Your task to perform on an android device: Open calendar and show me the fourth week of next month Image 0: 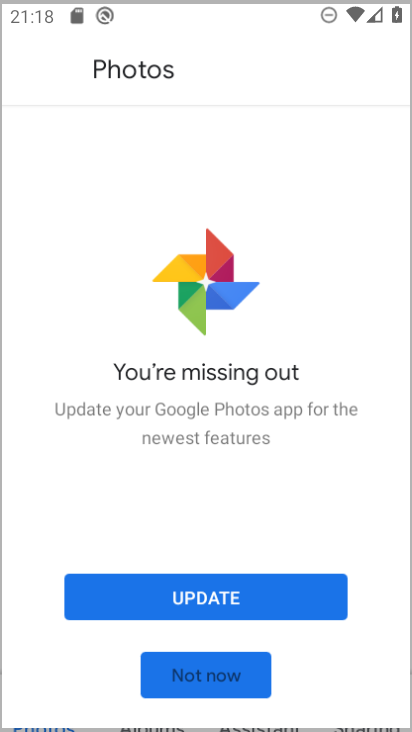
Step 0: press home button
Your task to perform on an android device: Open calendar and show me the fourth week of next month Image 1: 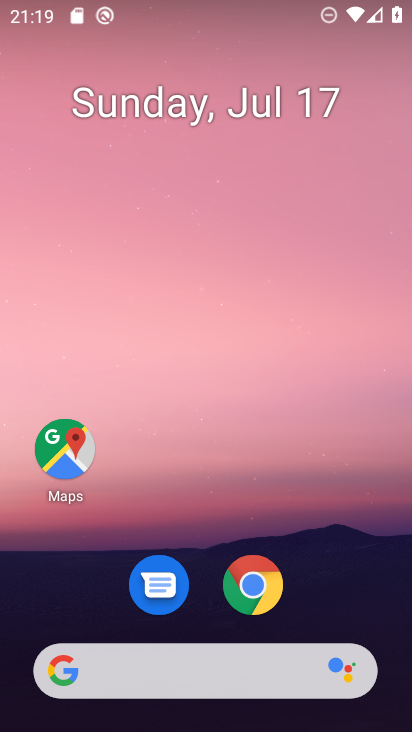
Step 1: drag from (206, 650) to (344, 131)
Your task to perform on an android device: Open calendar and show me the fourth week of next month Image 2: 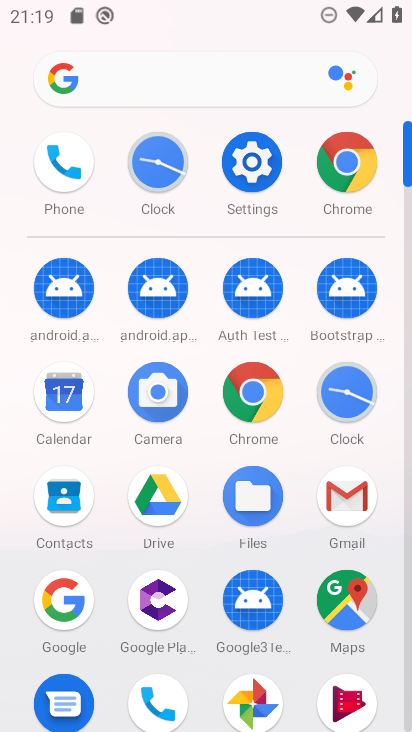
Step 2: click (71, 402)
Your task to perform on an android device: Open calendar and show me the fourth week of next month Image 3: 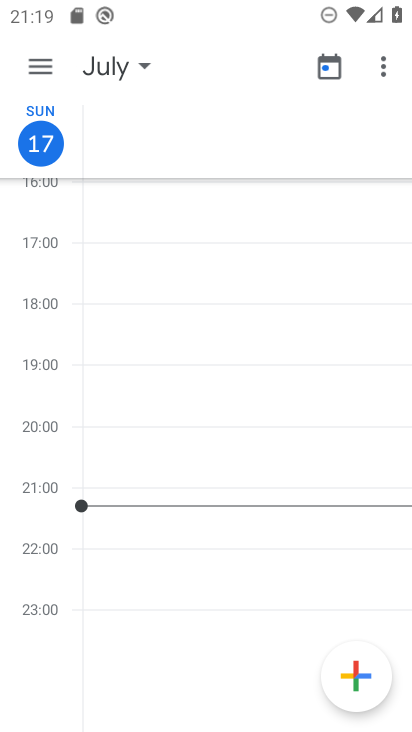
Step 3: click (98, 67)
Your task to perform on an android device: Open calendar and show me the fourth week of next month Image 4: 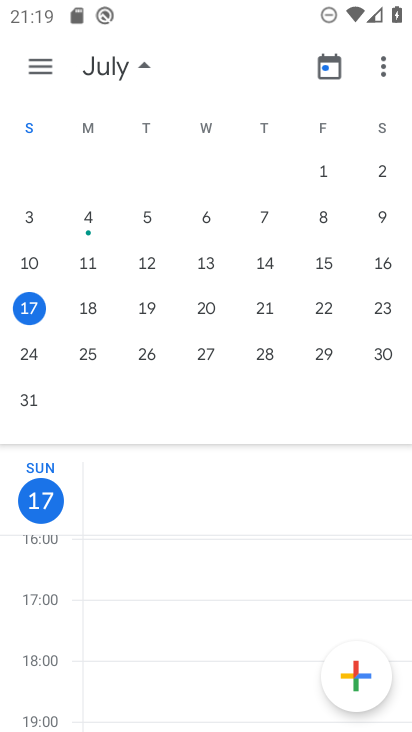
Step 4: drag from (381, 306) to (20, 280)
Your task to perform on an android device: Open calendar and show me the fourth week of next month Image 5: 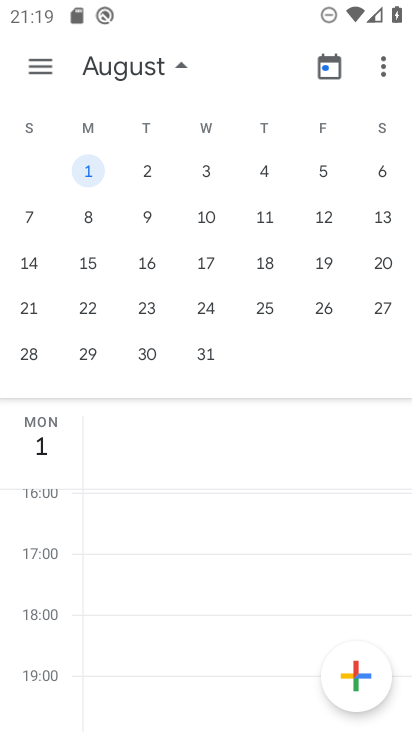
Step 5: click (26, 314)
Your task to perform on an android device: Open calendar and show me the fourth week of next month Image 6: 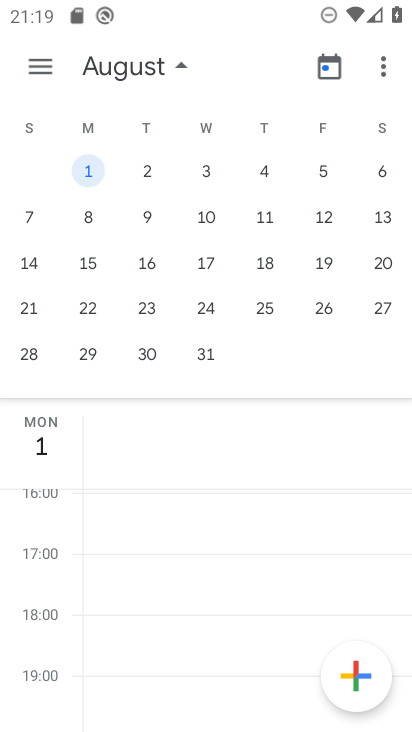
Step 6: click (31, 308)
Your task to perform on an android device: Open calendar and show me the fourth week of next month Image 7: 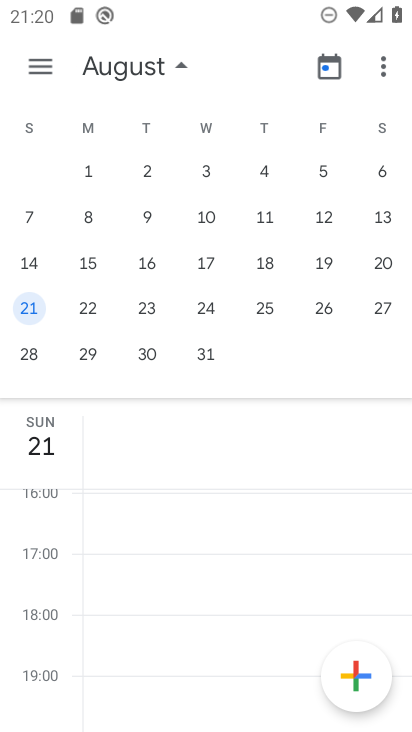
Step 7: click (34, 66)
Your task to perform on an android device: Open calendar and show me the fourth week of next month Image 8: 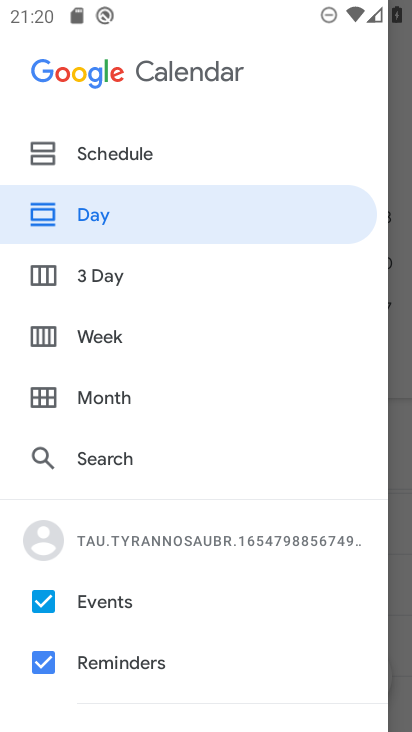
Step 8: click (102, 334)
Your task to perform on an android device: Open calendar and show me the fourth week of next month Image 9: 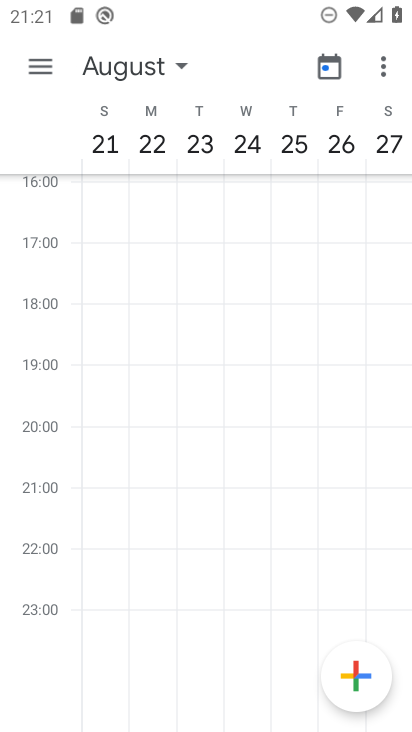
Step 9: task complete